Your task to perform on an android device: change the clock display to analog Image 0: 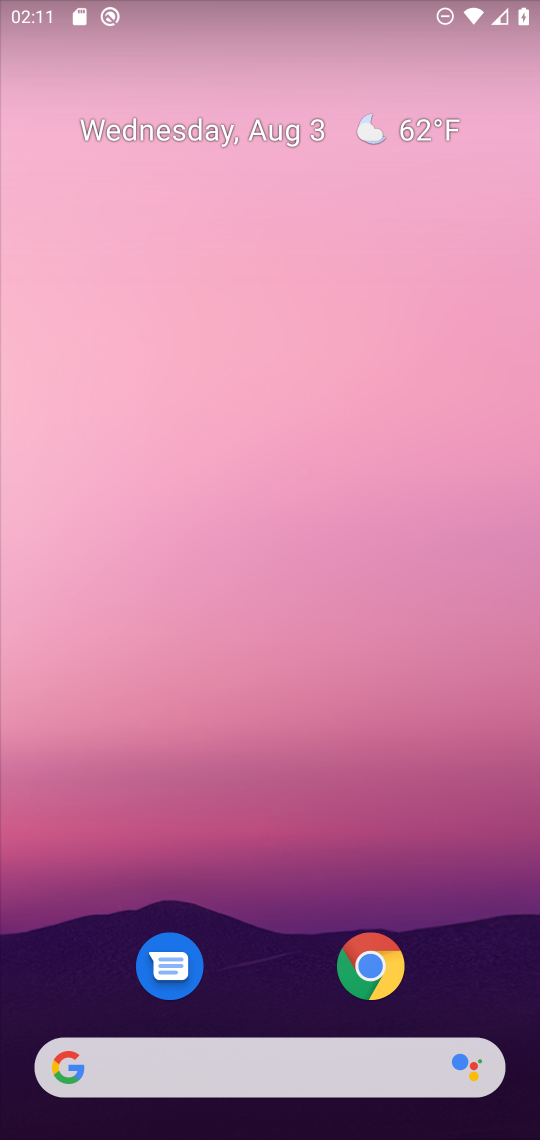
Step 0: drag from (253, 990) to (235, 324)
Your task to perform on an android device: change the clock display to analog Image 1: 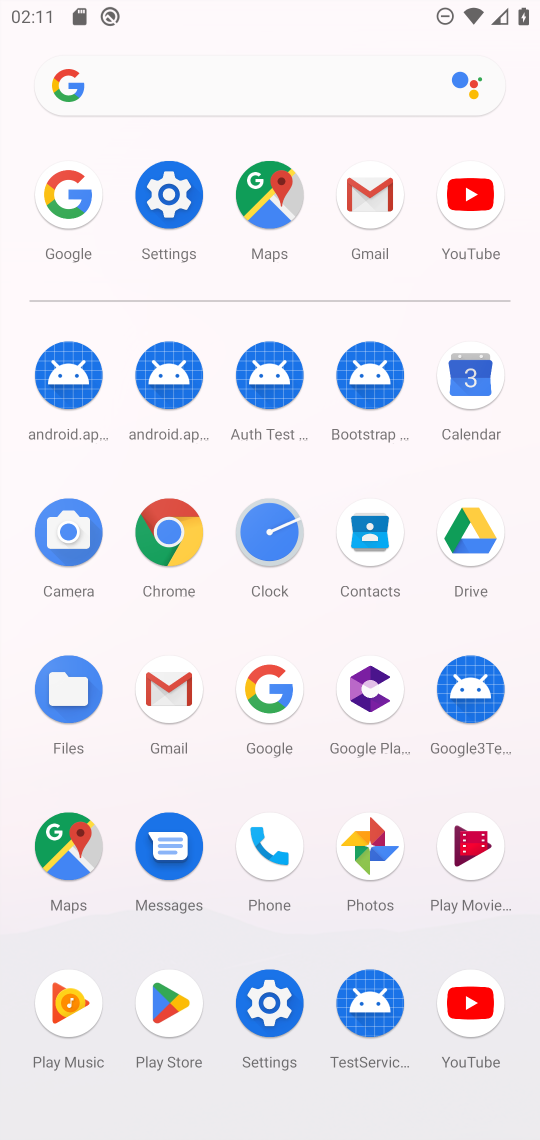
Step 1: click (275, 546)
Your task to perform on an android device: change the clock display to analog Image 2: 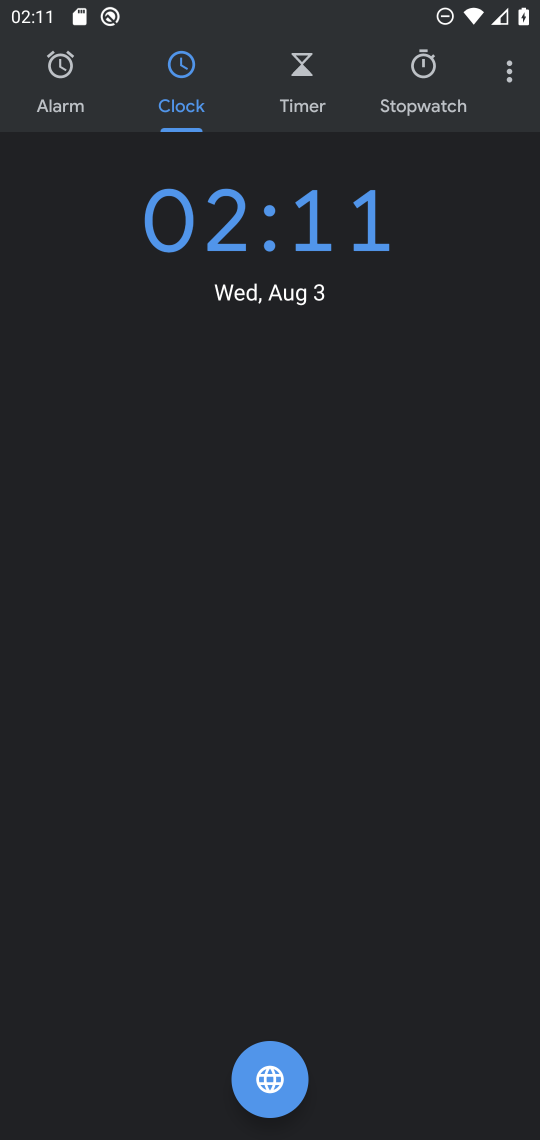
Step 2: click (507, 93)
Your task to perform on an android device: change the clock display to analog Image 3: 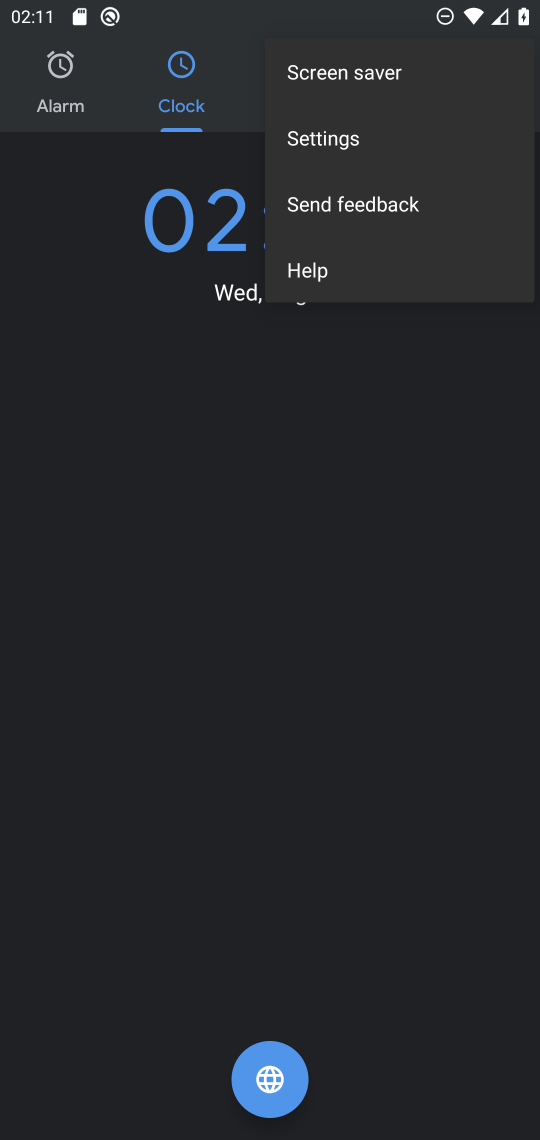
Step 3: click (351, 137)
Your task to perform on an android device: change the clock display to analog Image 4: 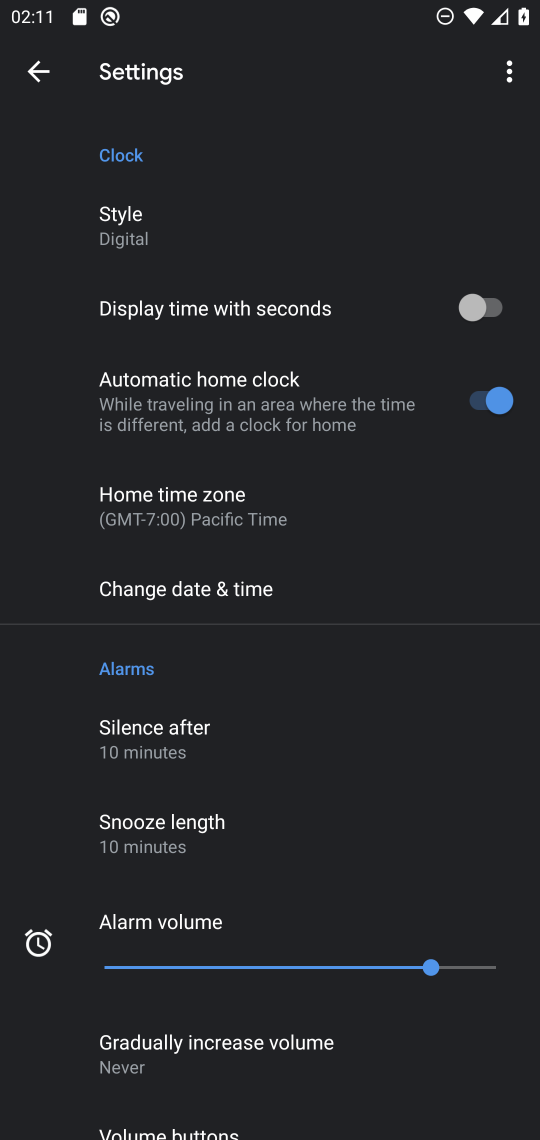
Step 4: click (166, 229)
Your task to perform on an android device: change the clock display to analog Image 5: 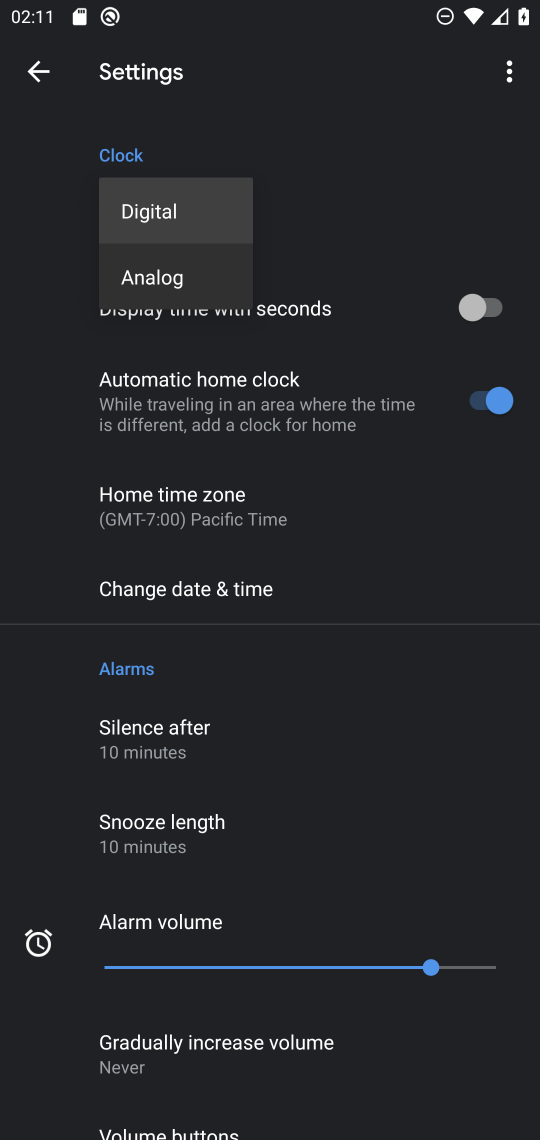
Step 5: click (171, 266)
Your task to perform on an android device: change the clock display to analog Image 6: 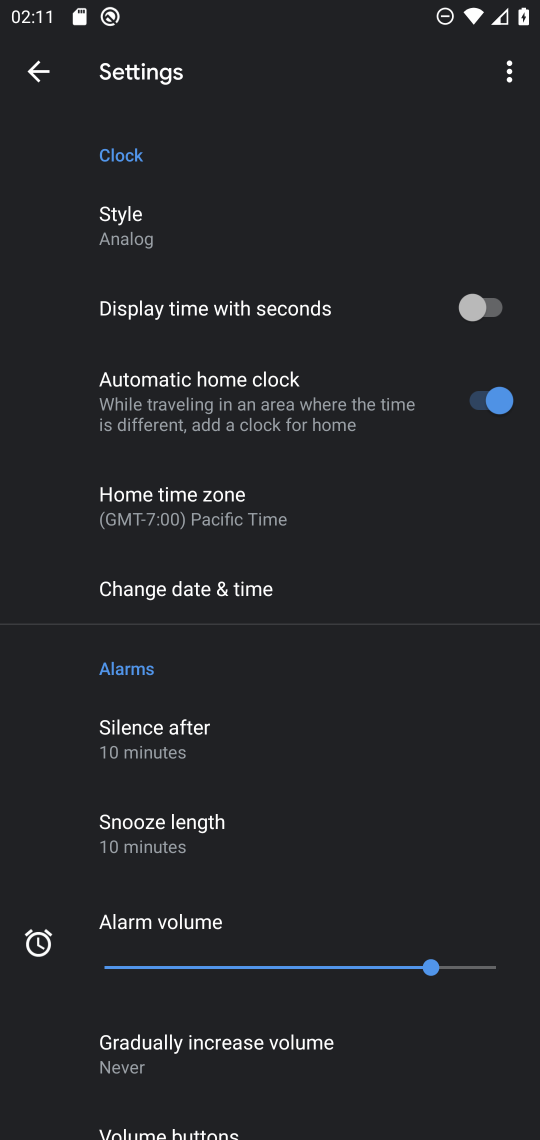
Step 6: task complete